Your task to perform on an android device: Show me productivity apps on the Play Store Image 0: 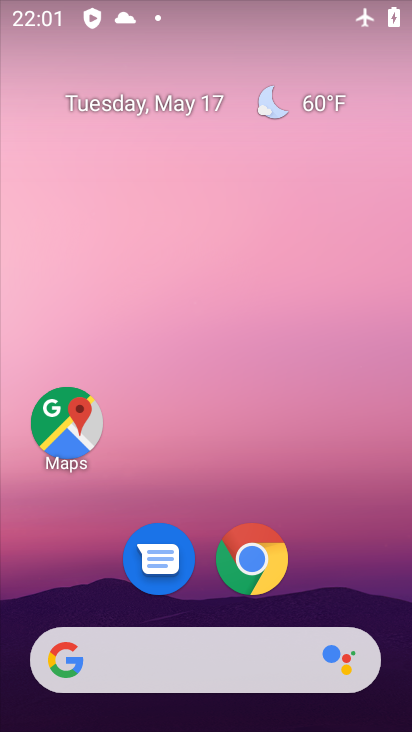
Step 0: drag from (325, 554) to (328, 99)
Your task to perform on an android device: Show me productivity apps on the Play Store Image 1: 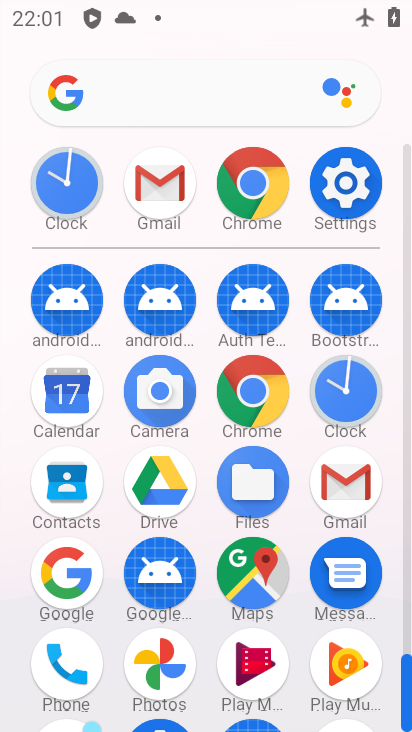
Step 1: drag from (296, 597) to (391, 234)
Your task to perform on an android device: Show me productivity apps on the Play Store Image 2: 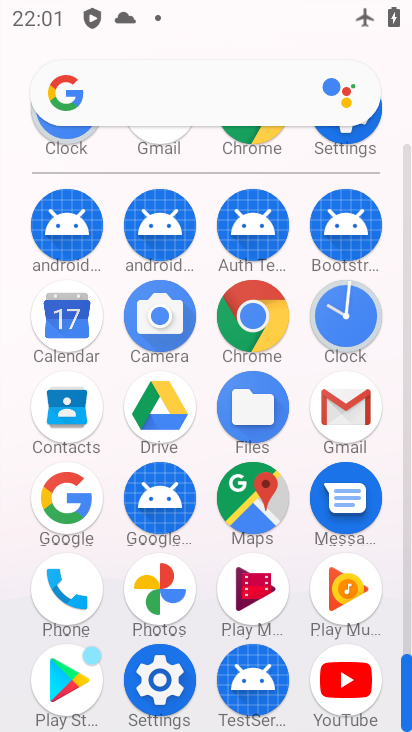
Step 2: click (82, 682)
Your task to perform on an android device: Show me productivity apps on the Play Store Image 3: 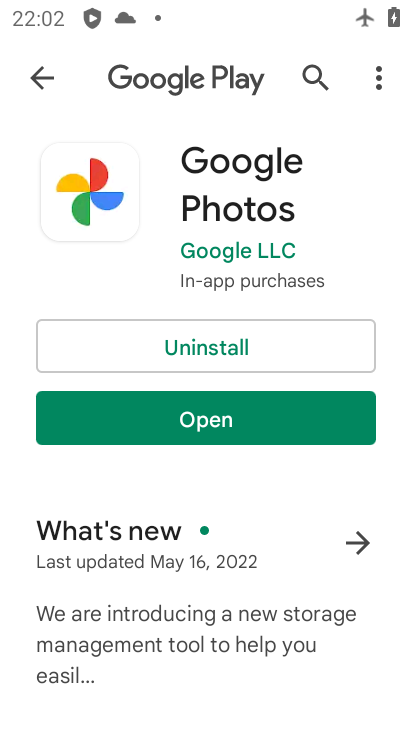
Step 3: click (56, 81)
Your task to perform on an android device: Show me productivity apps on the Play Store Image 4: 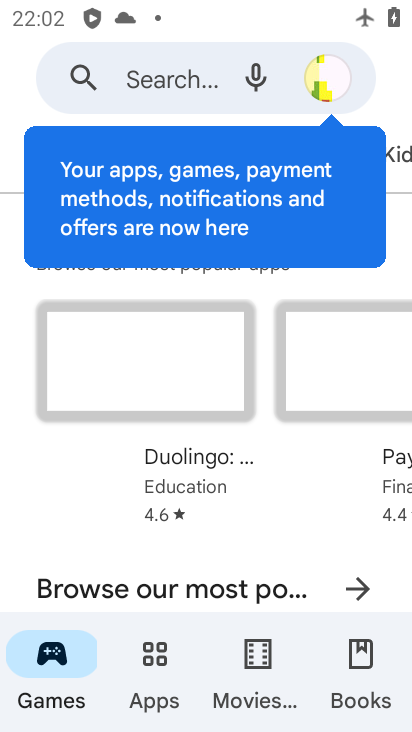
Step 4: click (172, 668)
Your task to perform on an android device: Show me productivity apps on the Play Store Image 5: 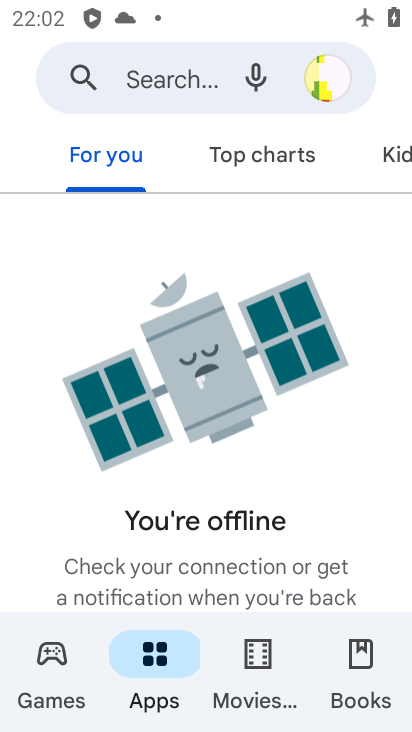
Step 5: task complete